Your task to perform on an android device: turn off location history Image 0: 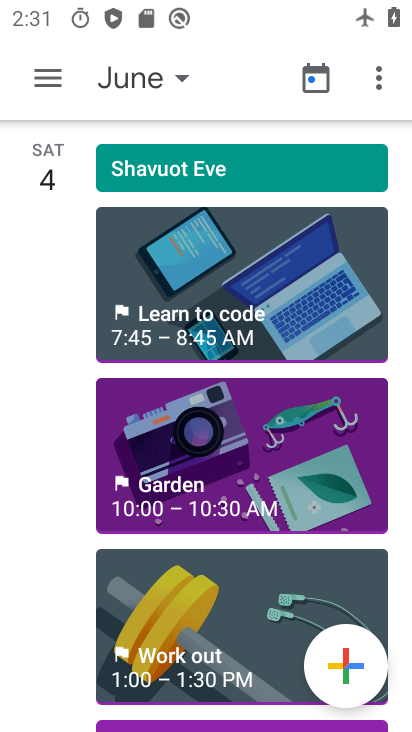
Step 0: press home button
Your task to perform on an android device: turn off location history Image 1: 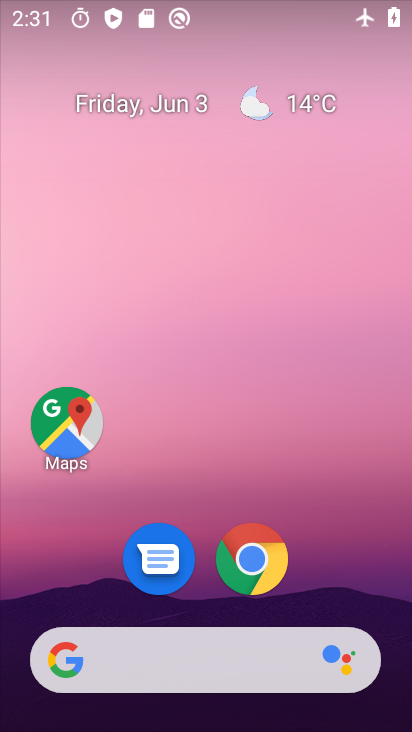
Step 1: drag from (211, 617) to (150, 40)
Your task to perform on an android device: turn off location history Image 2: 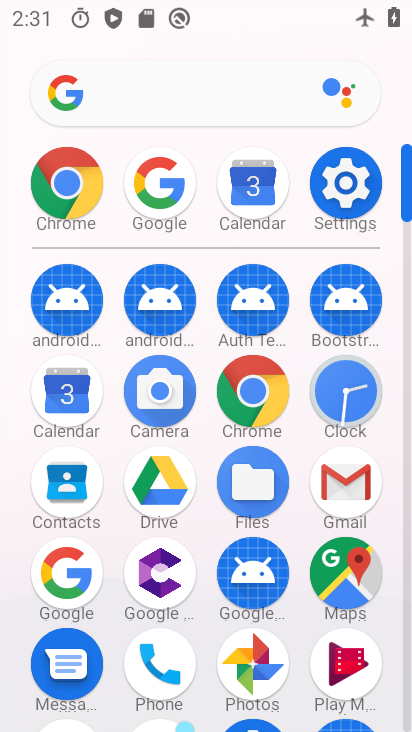
Step 2: click (343, 172)
Your task to perform on an android device: turn off location history Image 3: 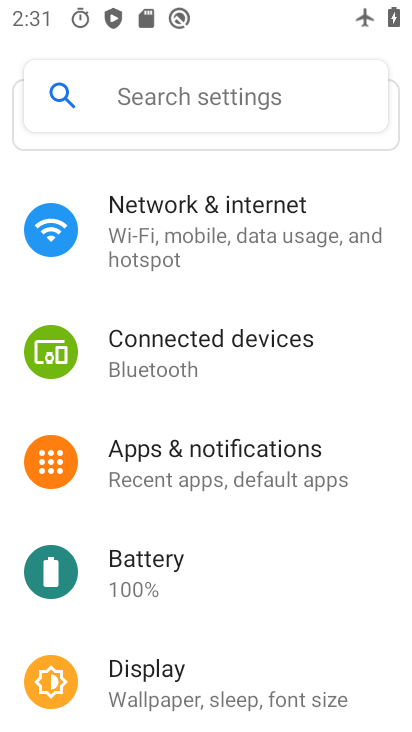
Step 3: drag from (344, 586) to (278, 71)
Your task to perform on an android device: turn off location history Image 4: 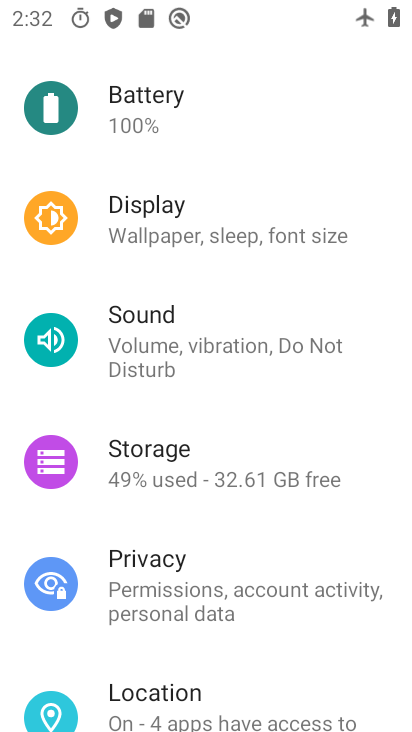
Step 4: click (191, 690)
Your task to perform on an android device: turn off location history Image 5: 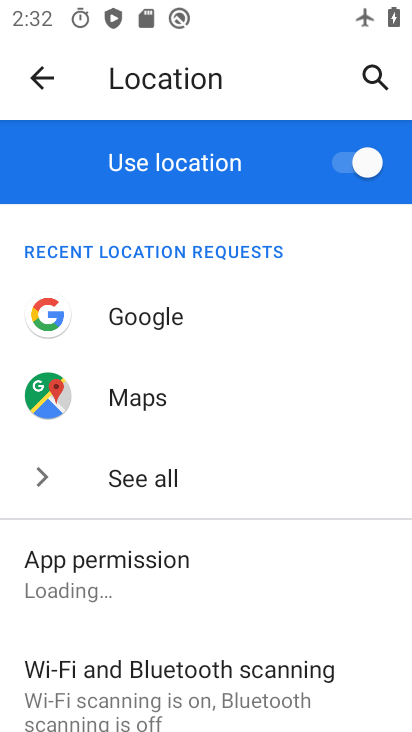
Step 5: drag from (242, 681) to (175, 200)
Your task to perform on an android device: turn off location history Image 6: 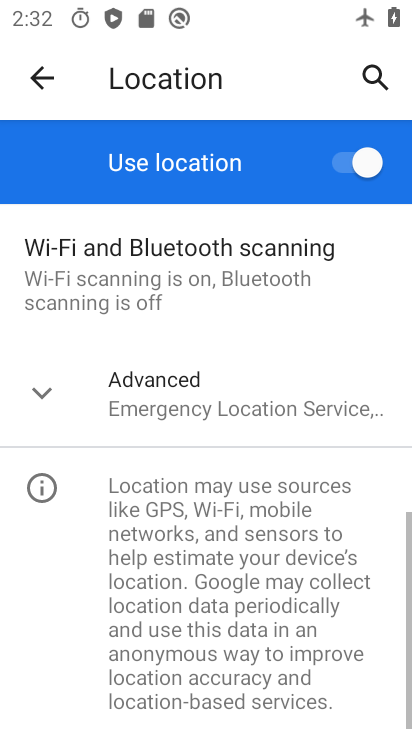
Step 6: click (162, 402)
Your task to perform on an android device: turn off location history Image 7: 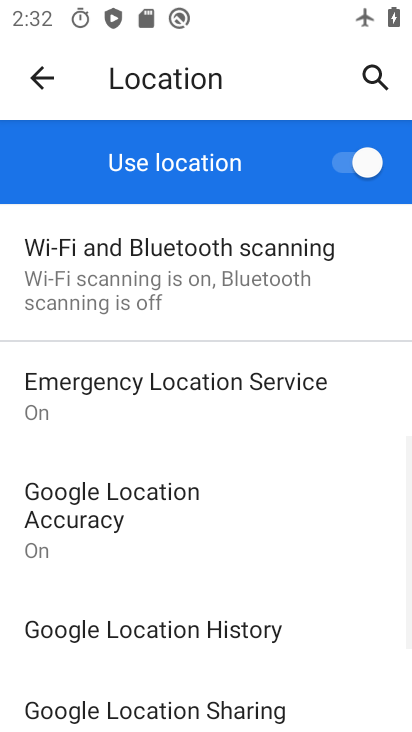
Step 7: click (161, 615)
Your task to perform on an android device: turn off location history Image 8: 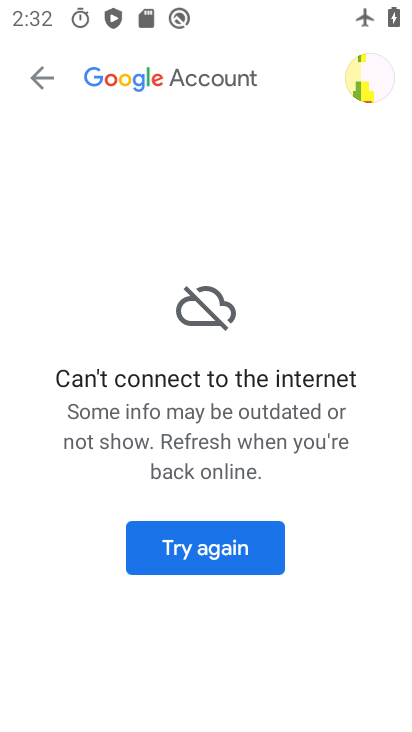
Step 8: task complete